Your task to perform on an android device: toggle show notifications on the lock screen Image 0: 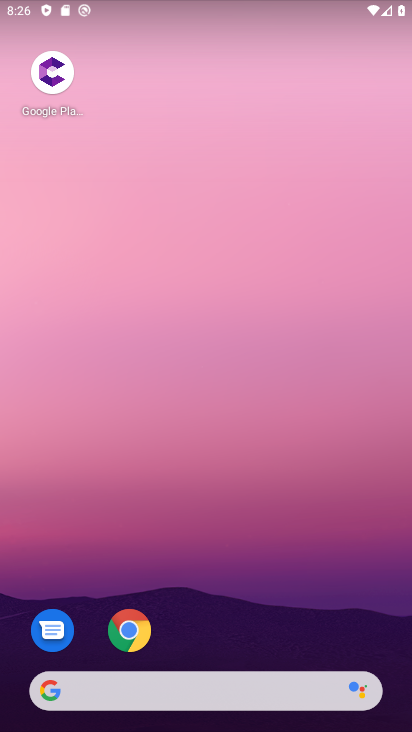
Step 0: drag from (237, 644) to (303, 158)
Your task to perform on an android device: toggle show notifications on the lock screen Image 1: 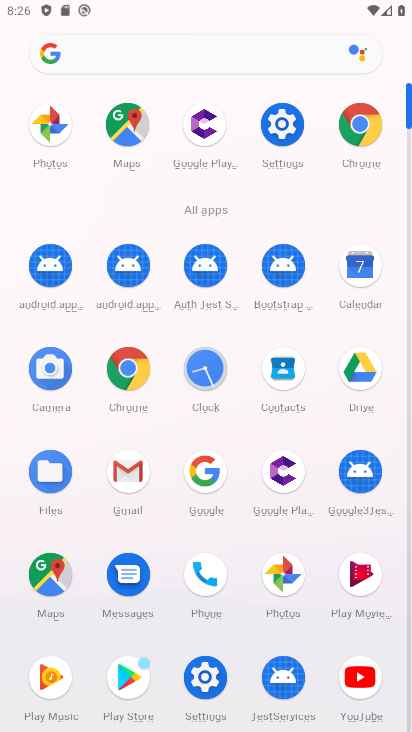
Step 1: click (282, 126)
Your task to perform on an android device: toggle show notifications on the lock screen Image 2: 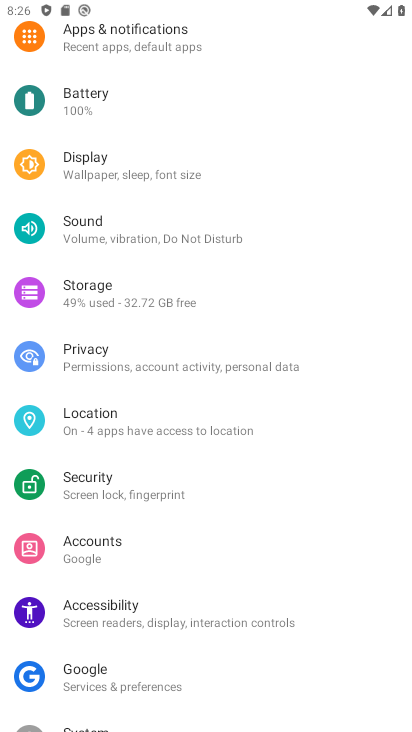
Step 2: click (162, 42)
Your task to perform on an android device: toggle show notifications on the lock screen Image 3: 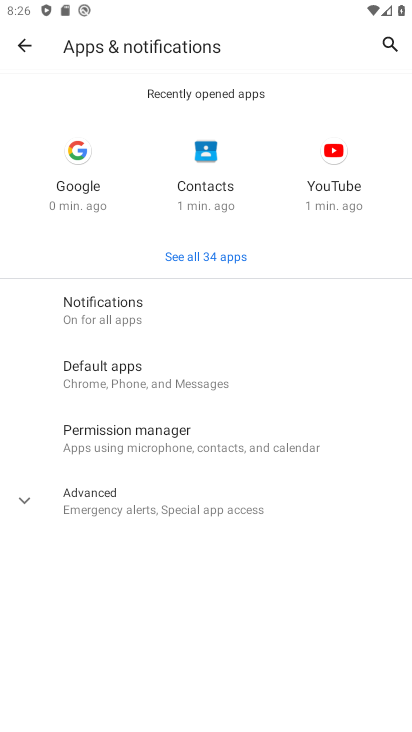
Step 3: click (109, 306)
Your task to perform on an android device: toggle show notifications on the lock screen Image 4: 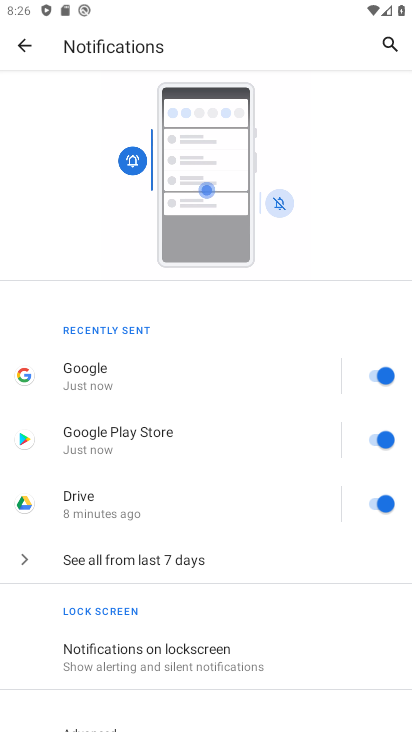
Step 4: click (101, 650)
Your task to perform on an android device: toggle show notifications on the lock screen Image 5: 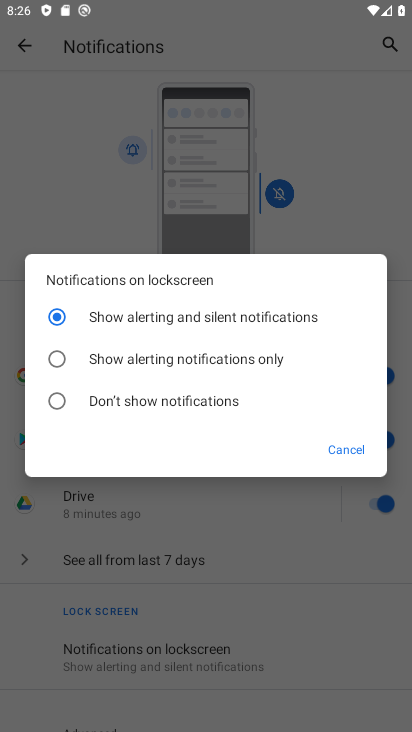
Step 5: click (58, 399)
Your task to perform on an android device: toggle show notifications on the lock screen Image 6: 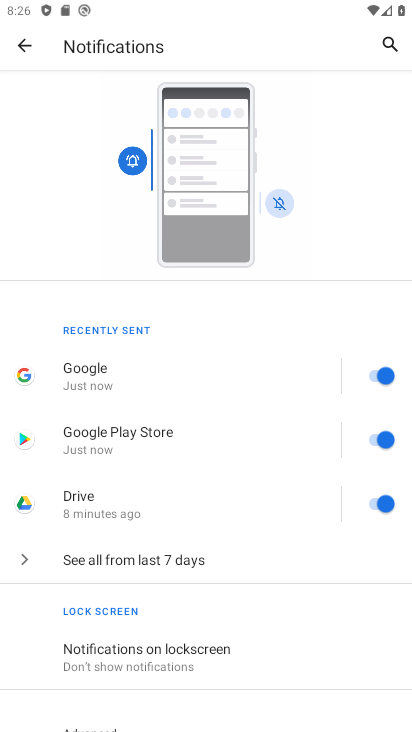
Step 6: task complete